Your task to perform on an android device: choose inbox layout in the gmail app Image 0: 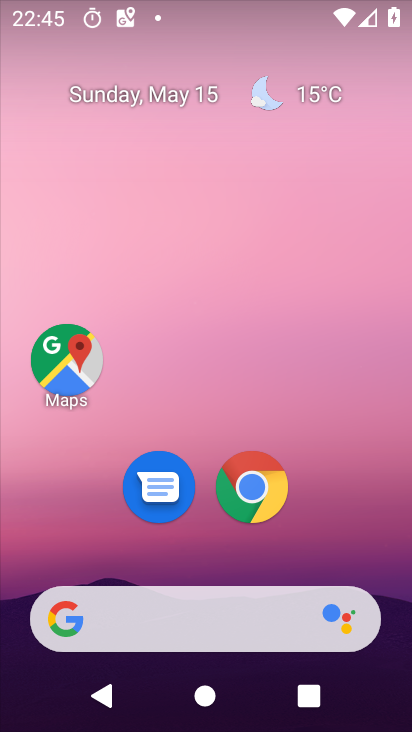
Step 0: drag from (190, 640) to (268, 44)
Your task to perform on an android device: choose inbox layout in the gmail app Image 1: 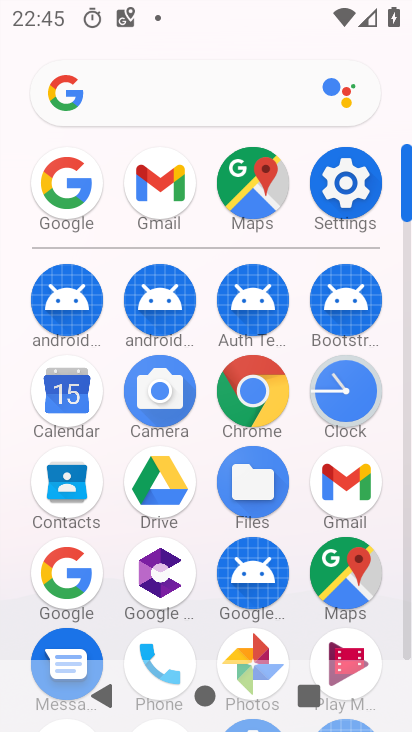
Step 1: click (171, 214)
Your task to perform on an android device: choose inbox layout in the gmail app Image 2: 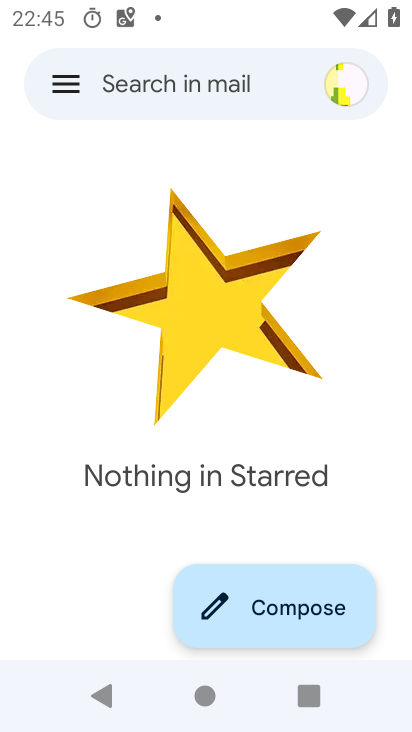
Step 2: click (75, 88)
Your task to perform on an android device: choose inbox layout in the gmail app Image 3: 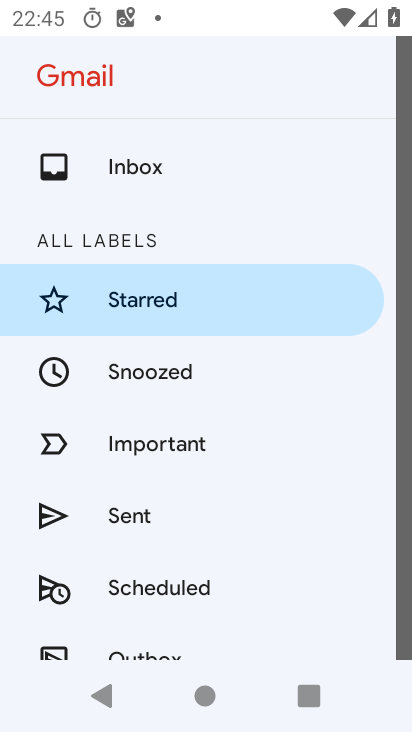
Step 3: drag from (201, 567) to (279, 177)
Your task to perform on an android device: choose inbox layout in the gmail app Image 4: 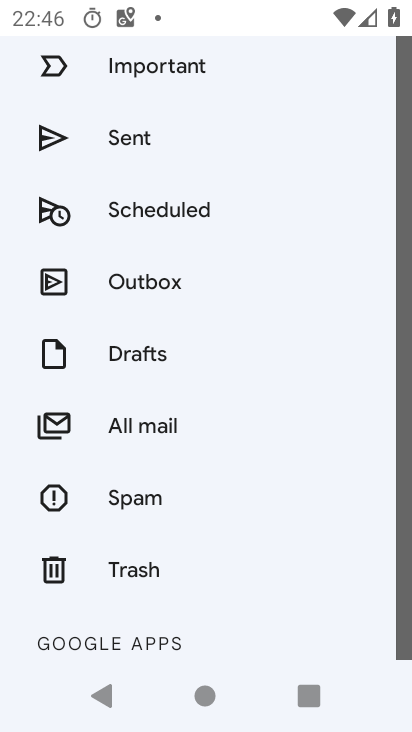
Step 4: drag from (210, 649) to (356, 250)
Your task to perform on an android device: choose inbox layout in the gmail app Image 5: 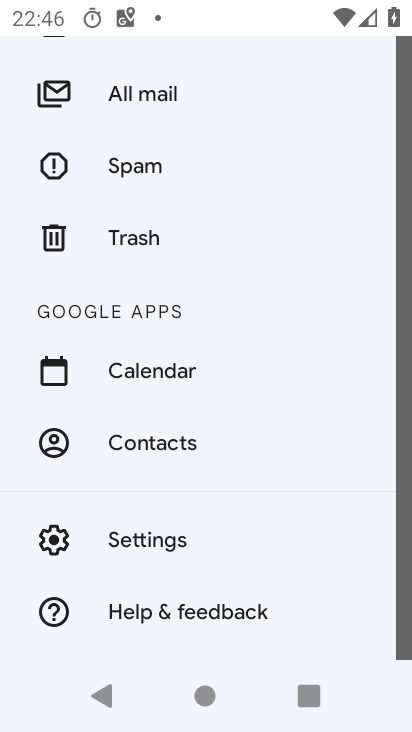
Step 5: click (185, 544)
Your task to perform on an android device: choose inbox layout in the gmail app Image 6: 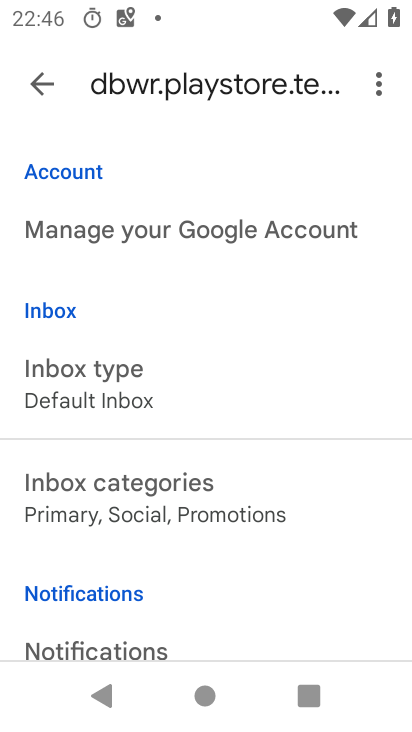
Step 6: click (52, 369)
Your task to perform on an android device: choose inbox layout in the gmail app Image 7: 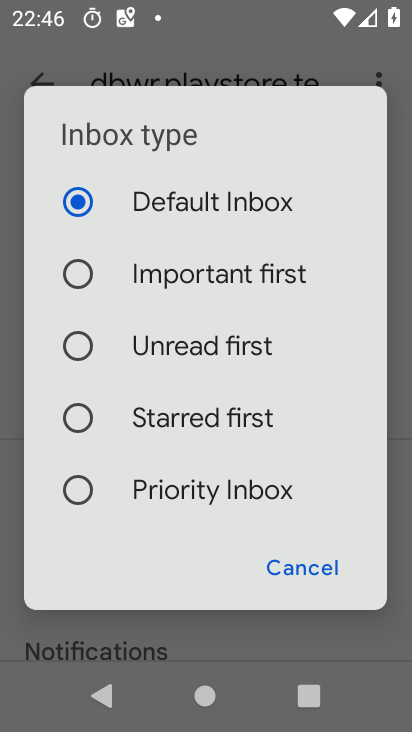
Step 7: click (66, 485)
Your task to perform on an android device: choose inbox layout in the gmail app Image 8: 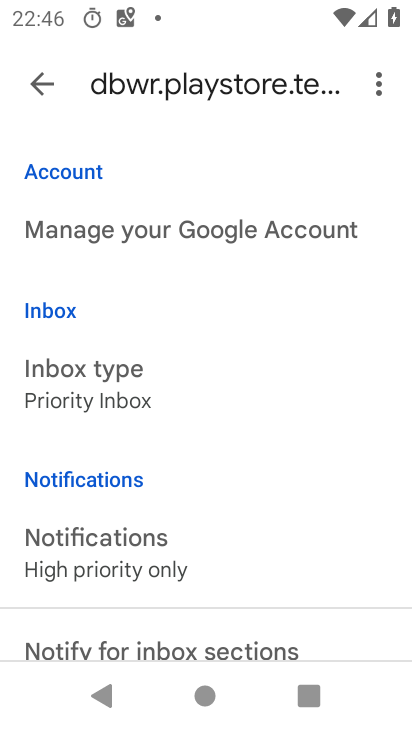
Step 8: task complete